Your task to perform on an android device: allow cookies in the chrome app Image 0: 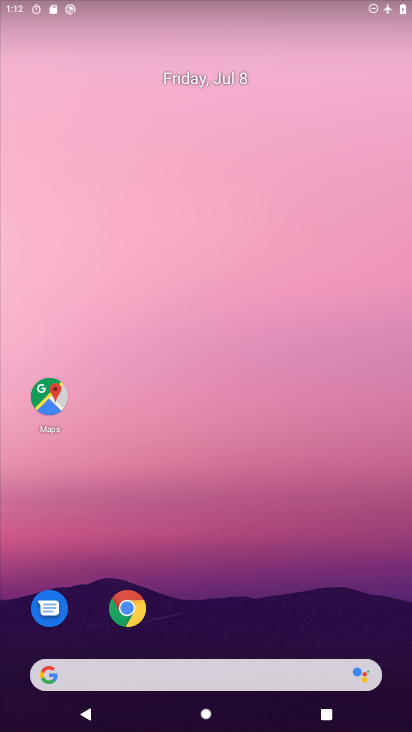
Step 0: drag from (248, 696) to (244, 115)
Your task to perform on an android device: allow cookies in the chrome app Image 1: 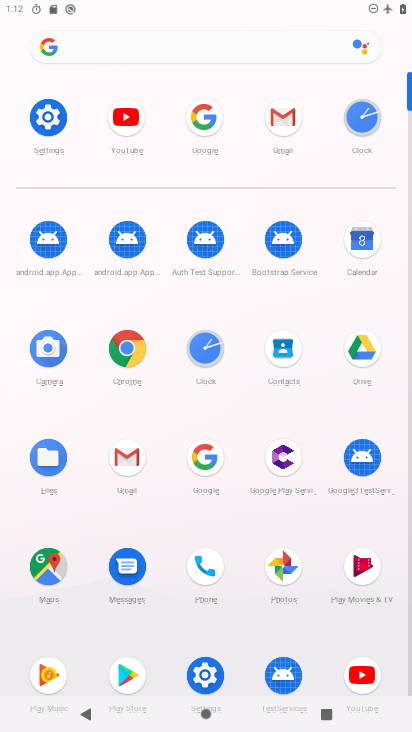
Step 1: click (129, 354)
Your task to perform on an android device: allow cookies in the chrome app Image 2: 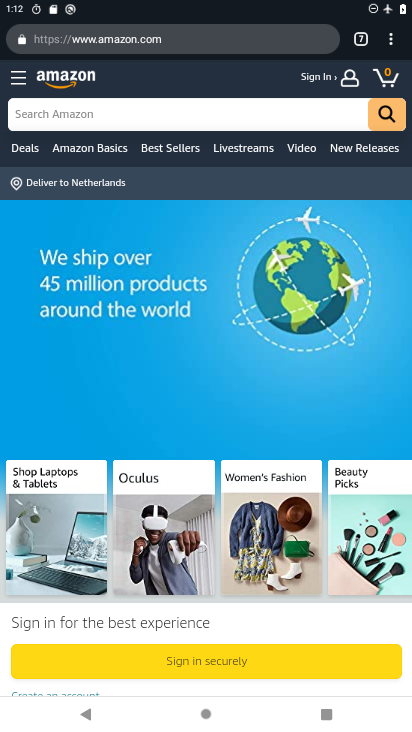
Step 2: click (392, 46)
Your task to perform on an android device: allow cookies in the chrome app Image 3: 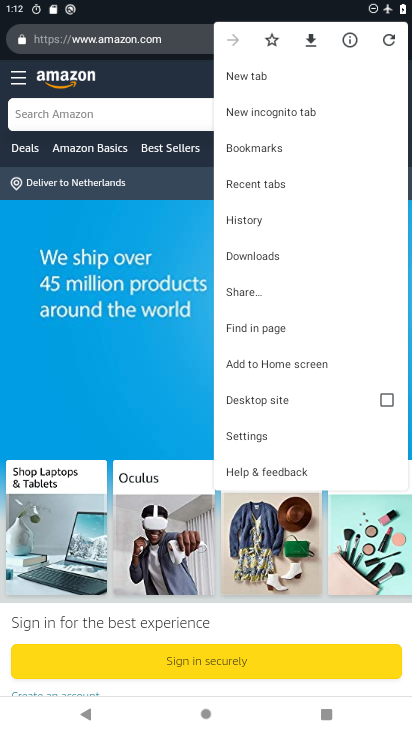
Step 3: click (258, 434)
Your task to perform on an android device: allow cookies in the chrome app Image 4: 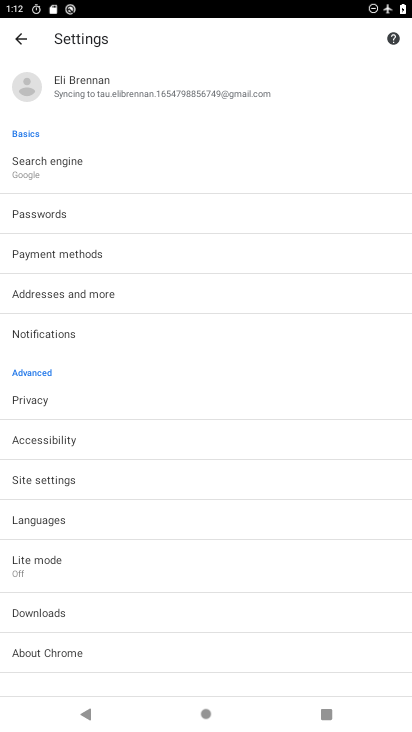
Step 4: click (56, 478)
Your task to perform on an android device: allow cookies in the chrome app Image 5: 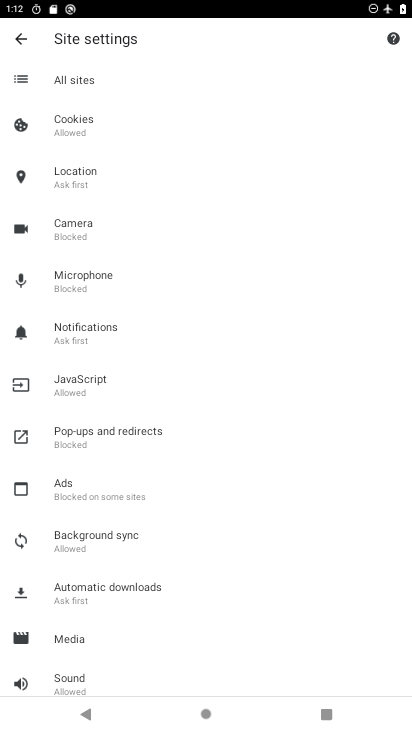
Step 5: click (65, 119)
Your task to perform on an android device: allow cookies in the chrome app Image 6: 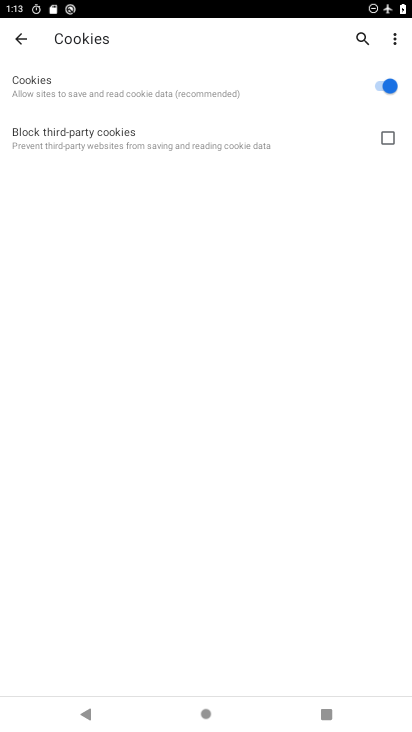
Step 6: task complete